Your task to perform on an android device: change the clock style Image 0: 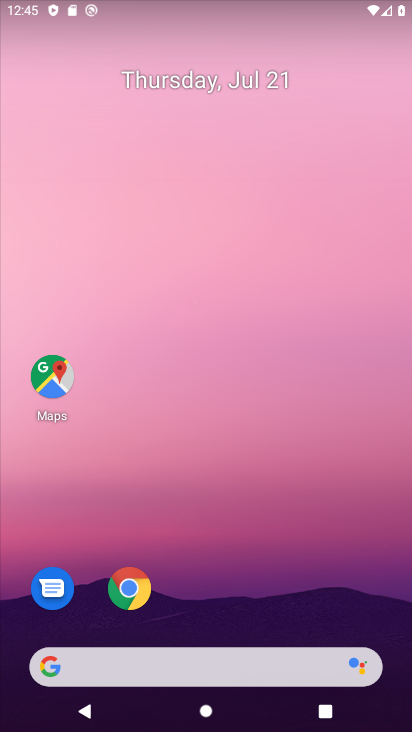
Step 0: drag from (306, 578) to (267, 356)
Your task to perform on an android device: change the clock style Image 1: 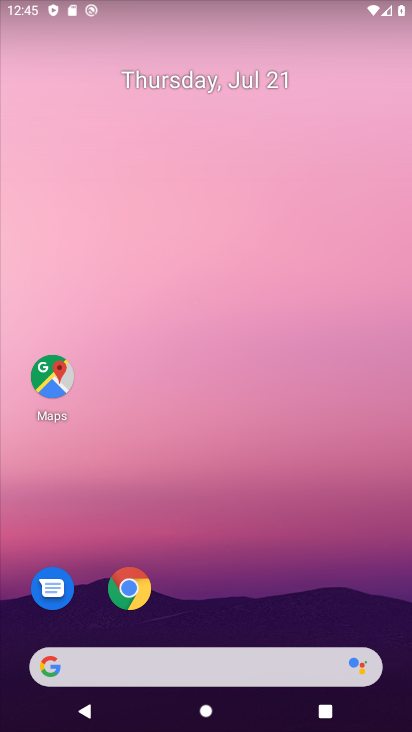
Step 1: drag from (277, 587) to (237, 251)
Your task to perform on an android device: change the clock style Image 2: 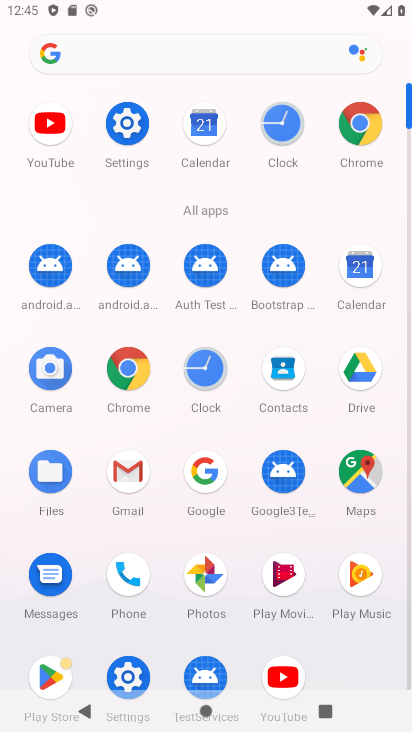
Step 2: click (286, 107)
Your task to perform on an android device: change the clock style Image 3: 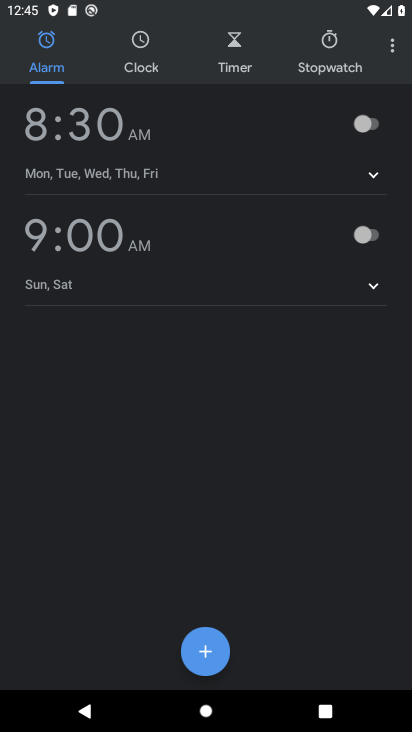
Step 3: click (396, 37)
Your task to perform on an android device: change the clock style Image 4: 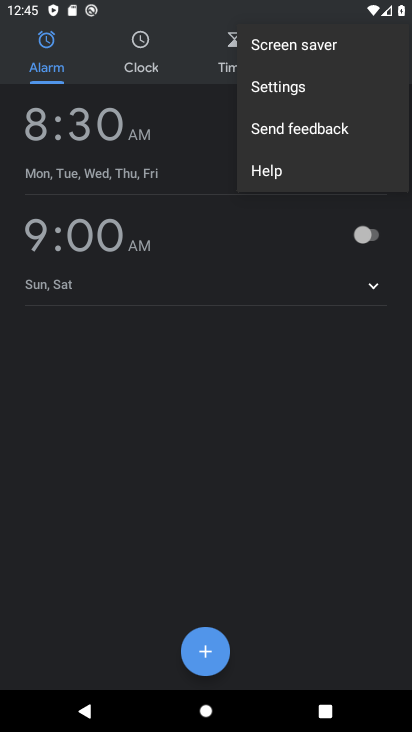
Step 4: click (275, 88)
Your task to perform on an android device: change the clock style Image 5: 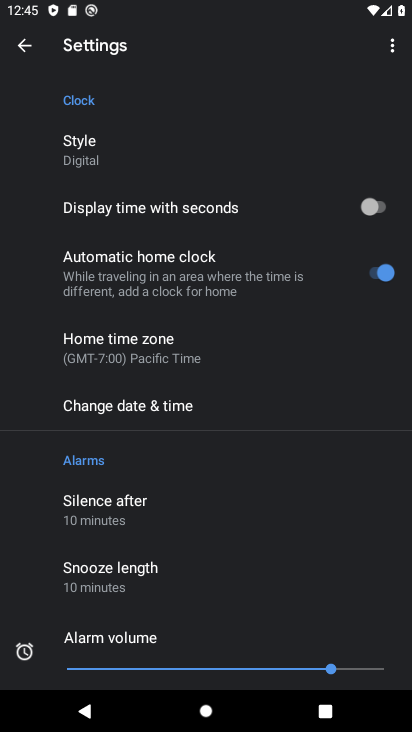
Step 5: click (155, 159)
Your task to perform on an android device: change the clock style Image 6: 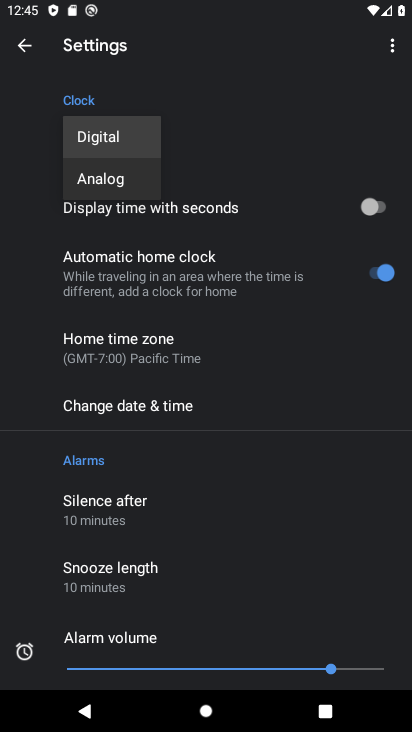
Step 6: click (139, 188)
Your task to perform on an android device: change the clock style Image 7: 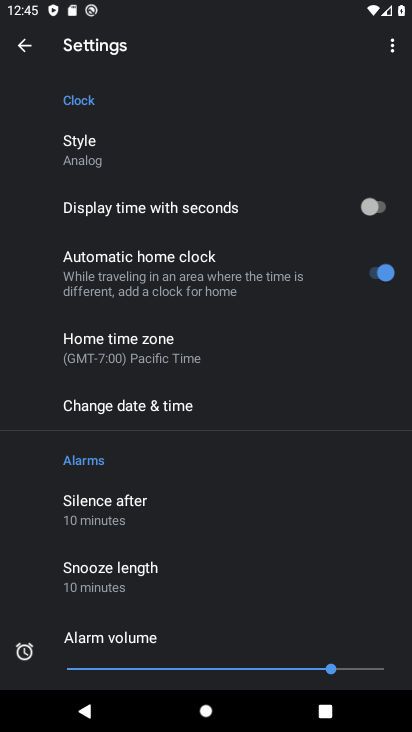
Step 7: task complete